Your task to perform on an android device: toggle sleep mode Image 0: 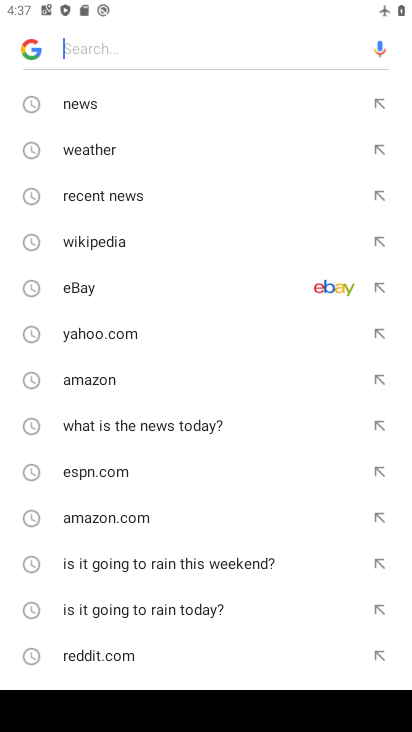
Step 0: press home button
Your task to perform on an android device: toggle sleep mode Image 1: 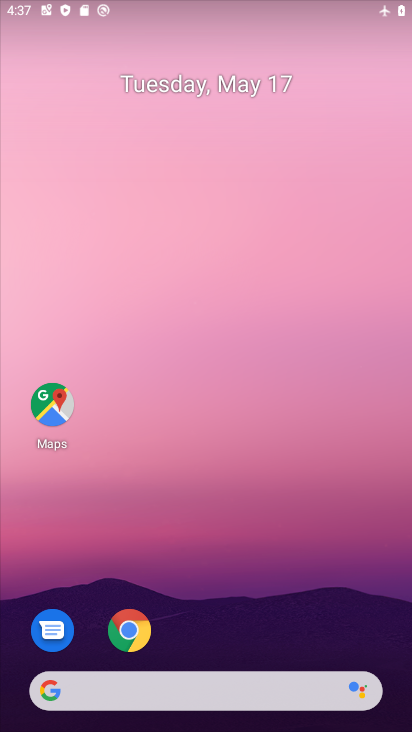
Step 1: drag from (227, 719) to (281, 101)
Your task to perform on an android device: toggle sleep mode Image 2: 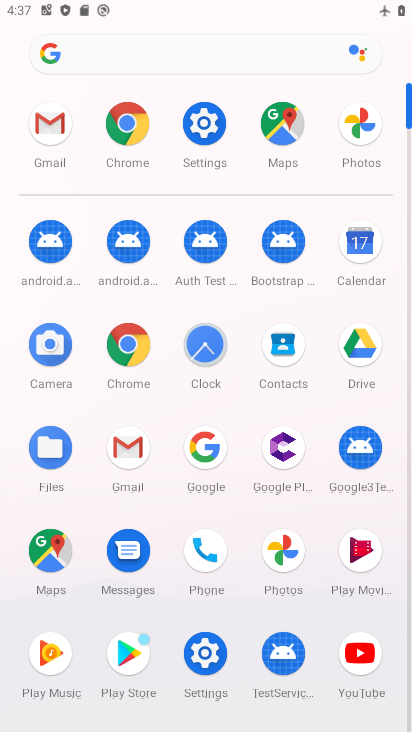
Step 2: click (199, 118)
Your task to perform on an android device: toggle sleep mode Image 3: 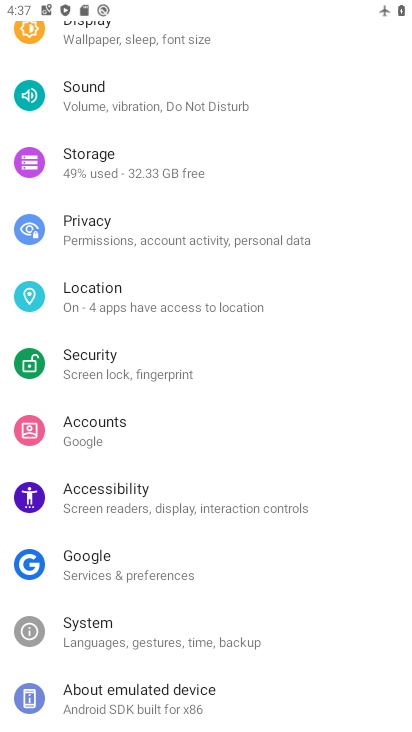
Step 3: drag from (252, 140) to (222, 591)
Your task to perform on an android device: toggle sleep mode Image 4: 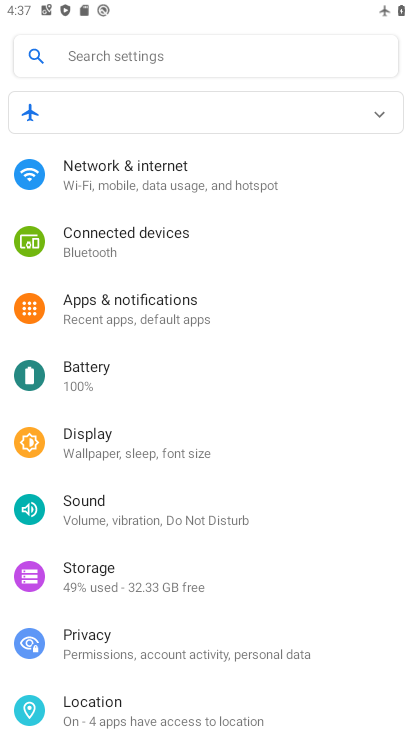
Step 4: click (160, 450)
Your task to perform on an android device: toggle sleep mode Image 5: 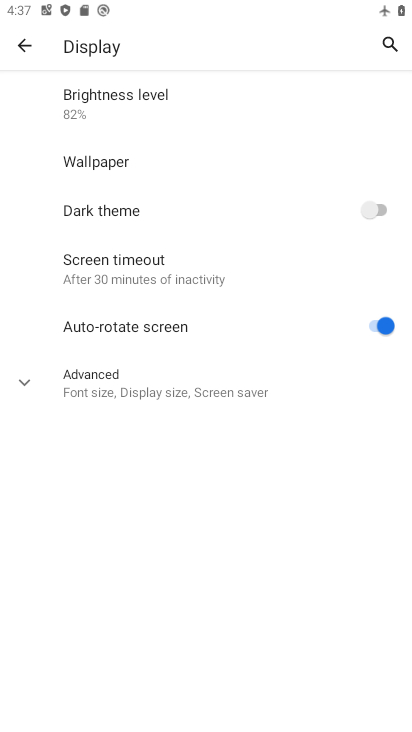
Step 5: click (23, 51)
Your task to perform on an android device: toggle sleep mode Image 6: 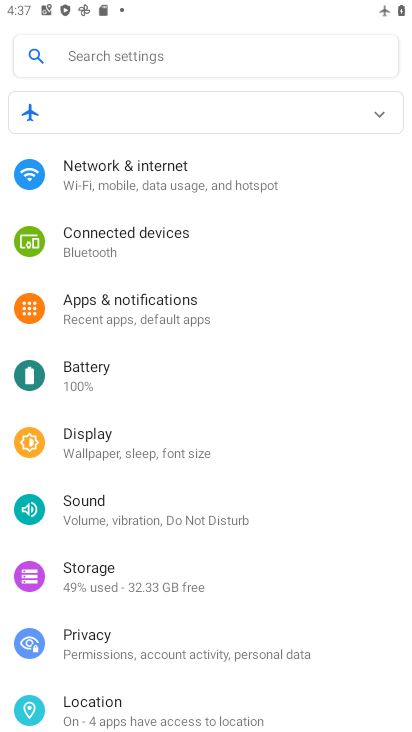
Step 6: task complete